Your task to perform on an android device: find snoozed emails in the gmail app Image 0: 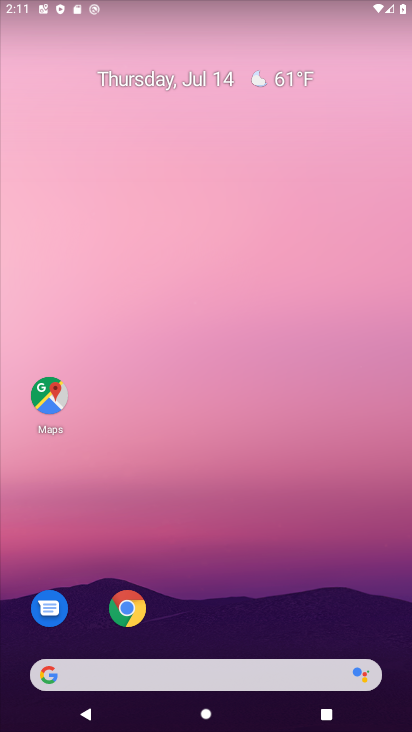
Step 0: drag from (169, 662) to (202, 253)
Your task to perform on an android device: find snoozed emails in the gmail app Image 1: 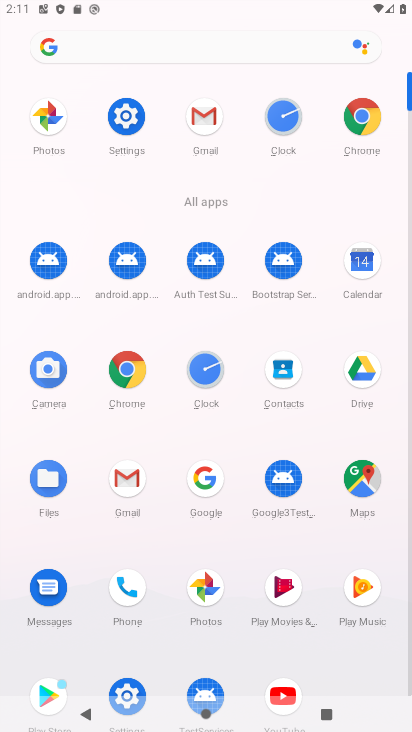
Step 1: click (133, 468)
Your task to perform on an android device: find snoozed emails in the gmail app Image 2: 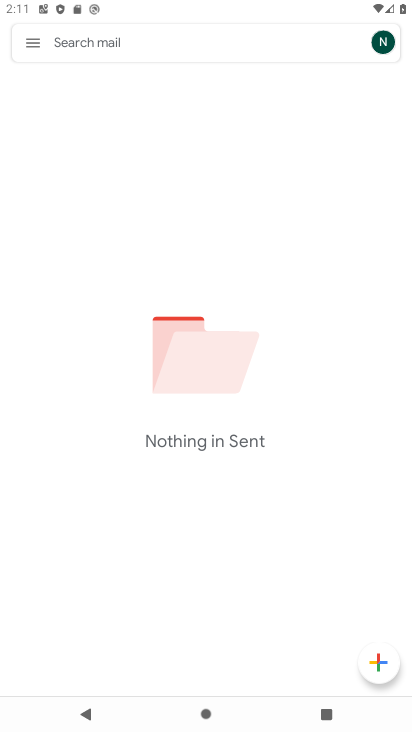
Step 2: click (25, 43)
Your task to perform on an android device: find snoozed emails in the gmail app Image 3: 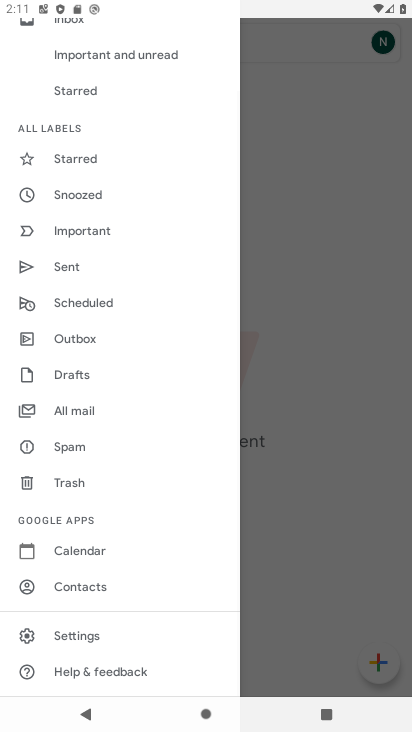
Step 3: click (66, 195)
Your task to perform on an android device: find snoozed emails in the gmail app Image 4: 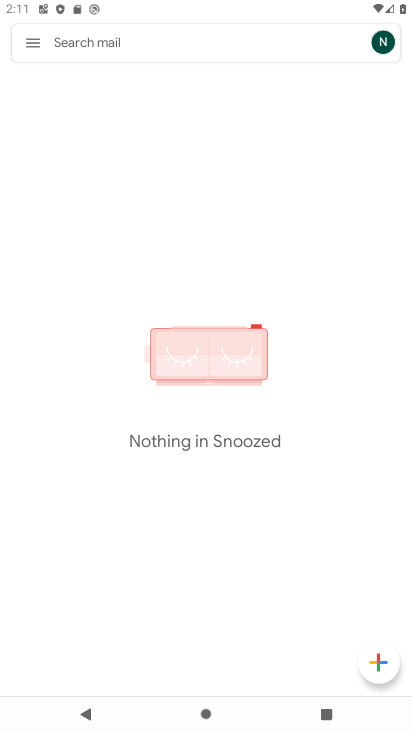
Step 4: task complete